Your task to perform on an android device: Find coffee shops on Maps Image 0: 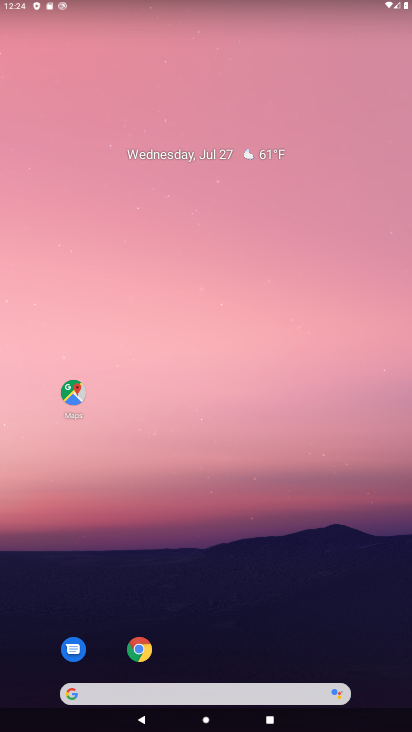
Step 0: drag from (222, 643) to (224, 162)
Your task to perform on an android device: Find coffee shops on Maps Image 1: 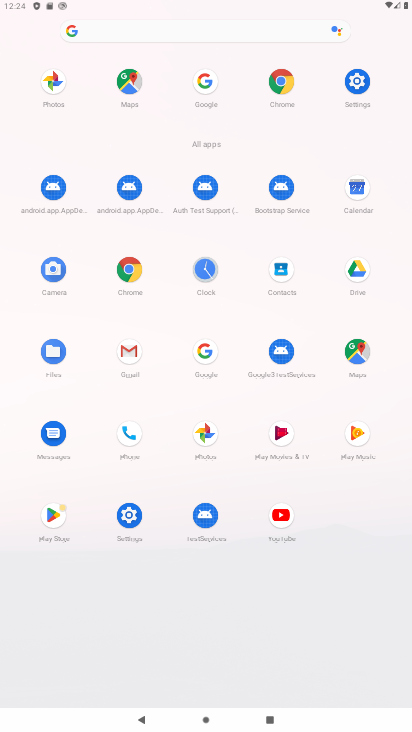
Step 1: click (357, 357)
Your task to perform on an android device: Find coffee shops on Maps Image 2: 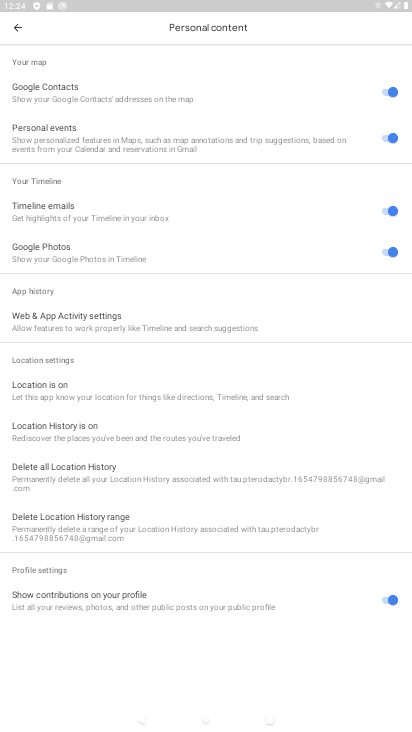
Step 2: click (13, 30)
Your task to perform on an android device: Find coffee shops on Maps Image 3: 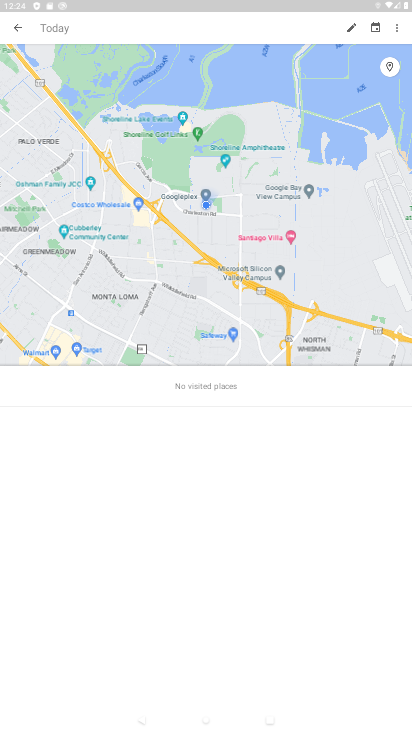
Step 3: click (13, 30)
Your task to perform on an android device: Find coffee shops on Maps Image 4: 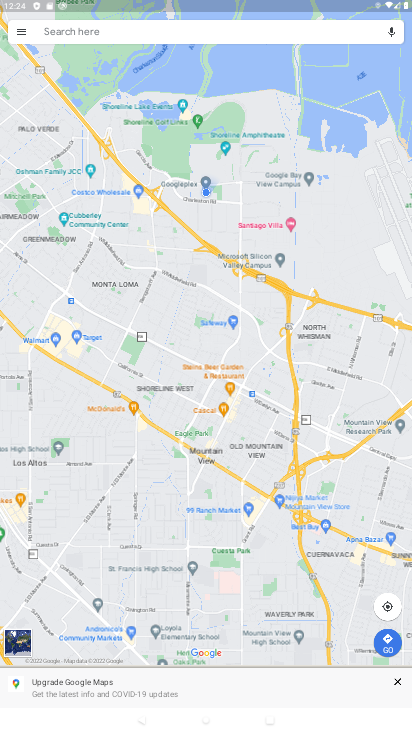
Step 4: click (253, 20)
Your task to perform on an android device: Find coffee shops on Maps Image 5: 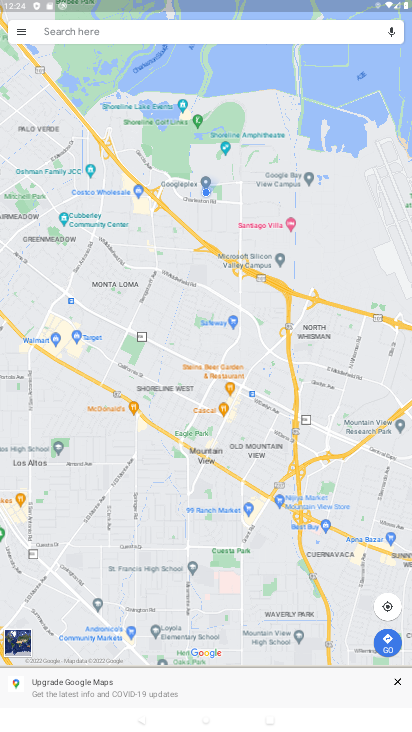
Step 5: click (180, 29)
Your task to perform on an android device: Find coffee shops on Maps Image 6: 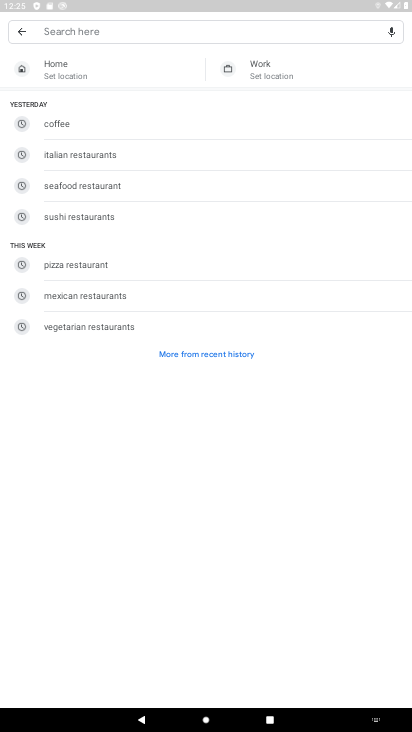
Step 6: type "coffee shops"
Your task to perform on an android device: Find coffee shops on Maps Image 7: 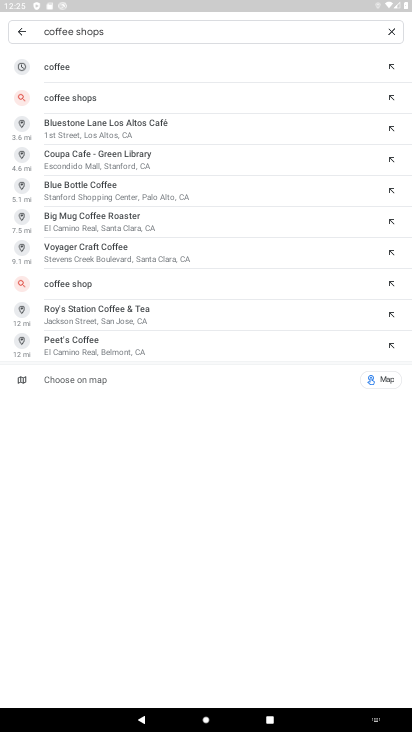
Step 7: click (149, 90)
Your task to perform on an android device: Find coffee shops on Maps Image 8: 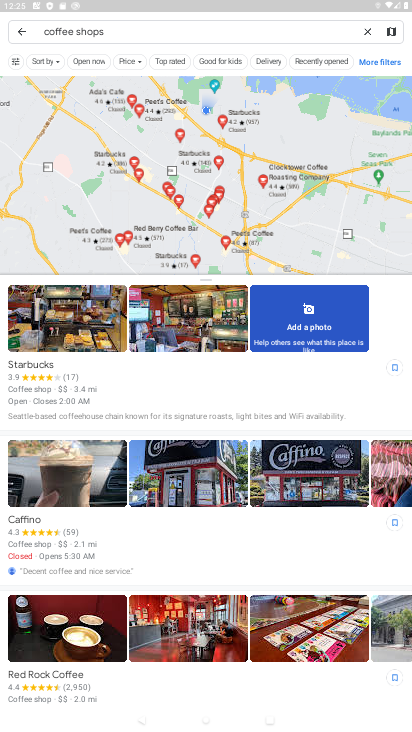
Step 8: task complete